Your task to perform on an android device: Set the phone to "Do not disturb". Image 0: 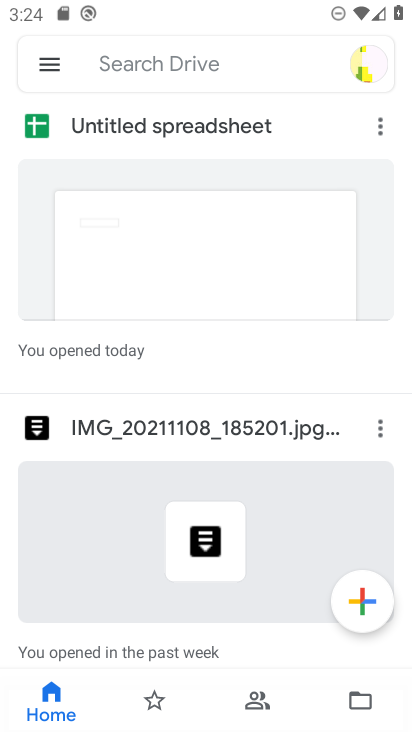
Step 0: press home button
Your task to perform on an android device: Set the phone to "Do not disturb". Image 1: 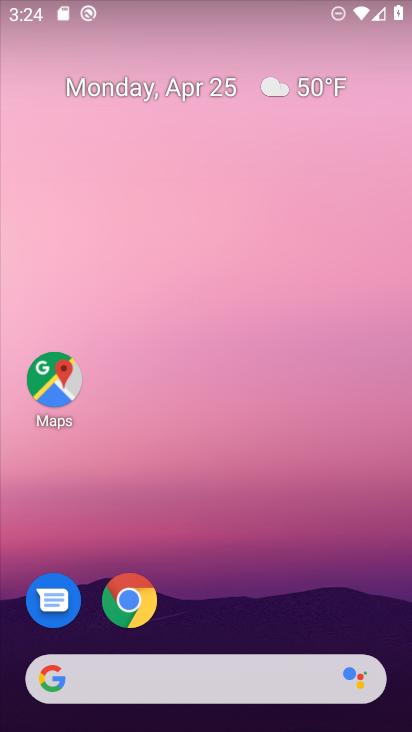
Step 1: task complete